Your task to perform on an android device: Open CNN.com Image 0: 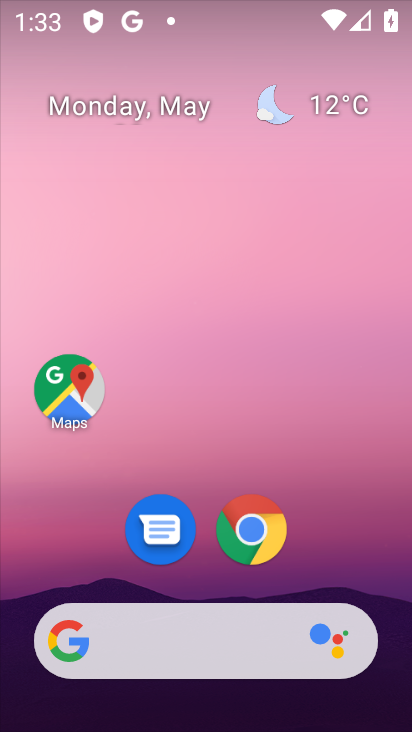
Step 0: click (252, 528)
Your task to perform on an android device: Open CNN.com Image 1: 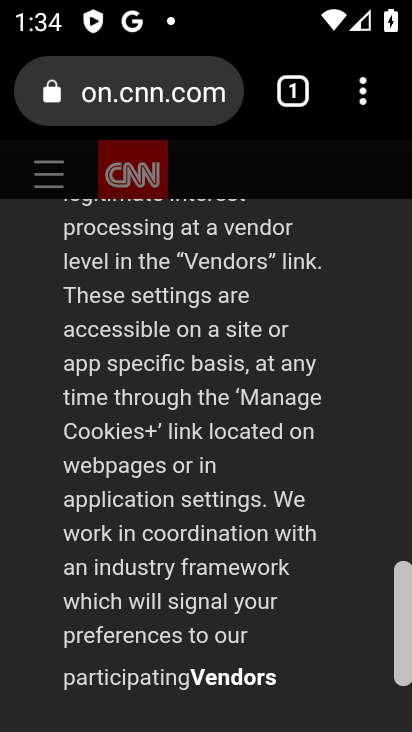
Step 1: task complete